Your task to perform on an android device: change alarm snooze length Image 0: 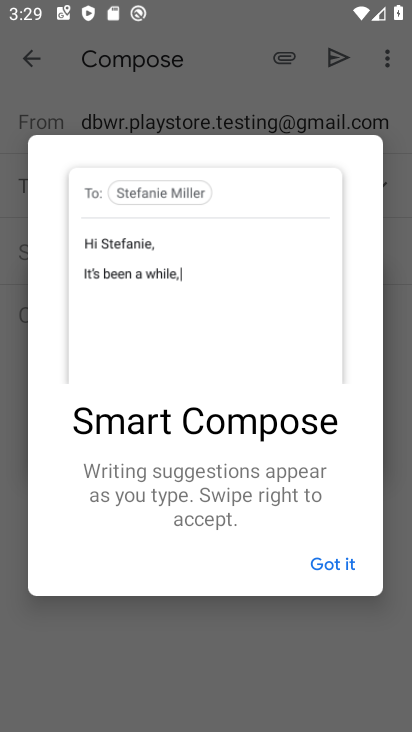
Step 0: press home button
Your task to perform on an android device: change alarm snooze length Image 1: 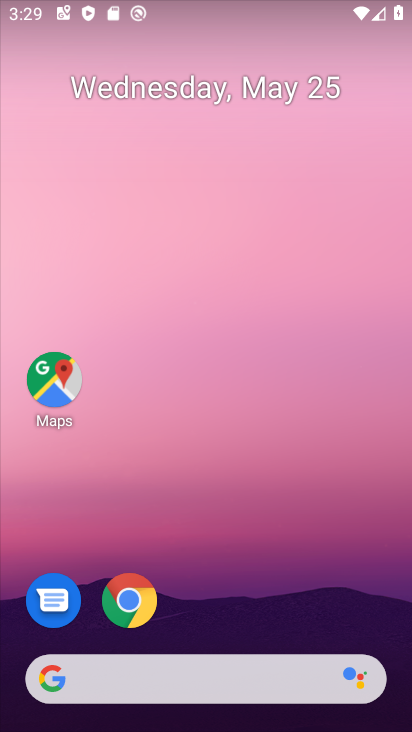
Step 1: drag from (69, 449) to (220, 139)
Your task to perform on an android device: change alarm snooze length Image 2: 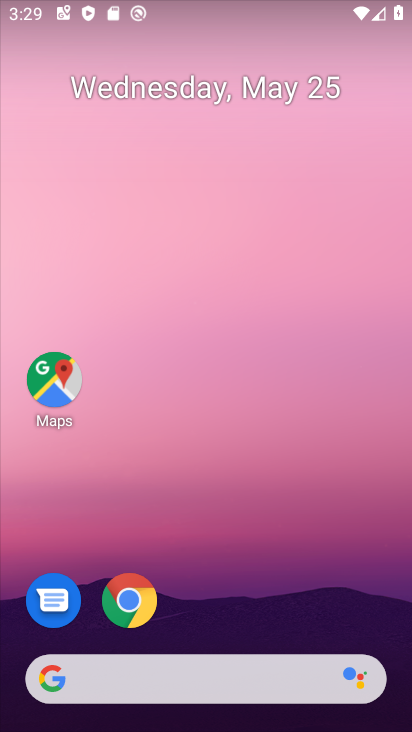
Step 2: drag from (16, 638) to (295, 64)
Your task to perform on an android device: change alarm snooze length Image 3: 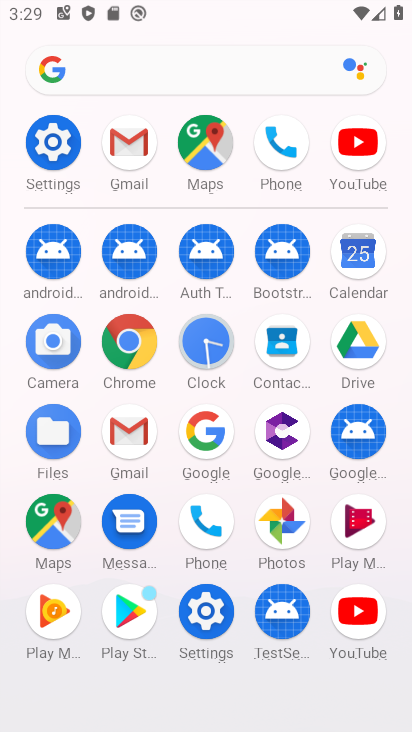
Step 3: click (206, 343)
Your task to perform on an android device: change alarm snooze length Image 4: 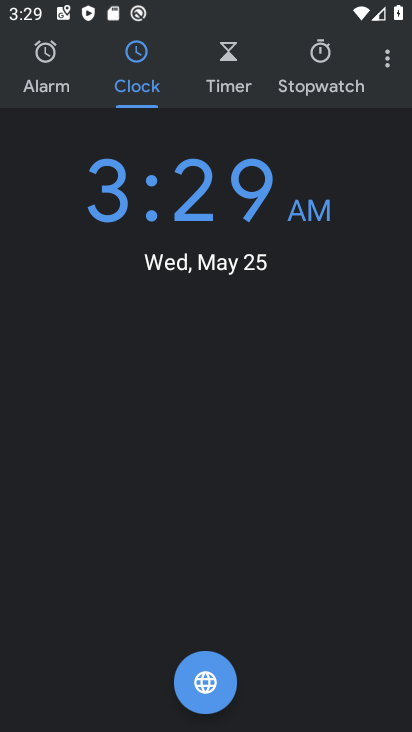
Step 4: click (387, 62)
Your task to perform on an android device: change alarm snooze length Image 5: 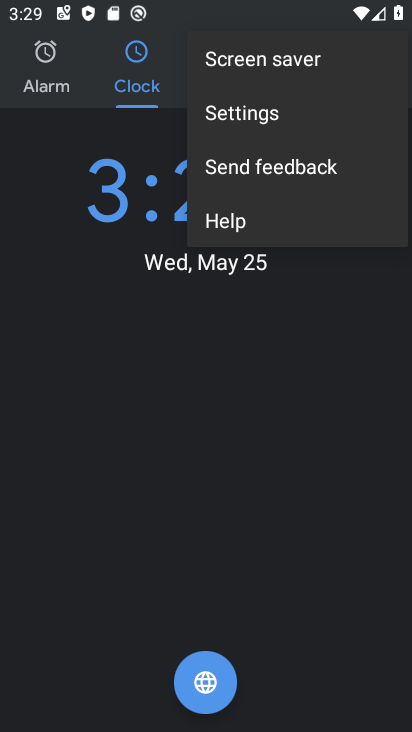
Step 5: click (280, 111)
Your task to perform on an android device: change alarm snooze length Image 6: 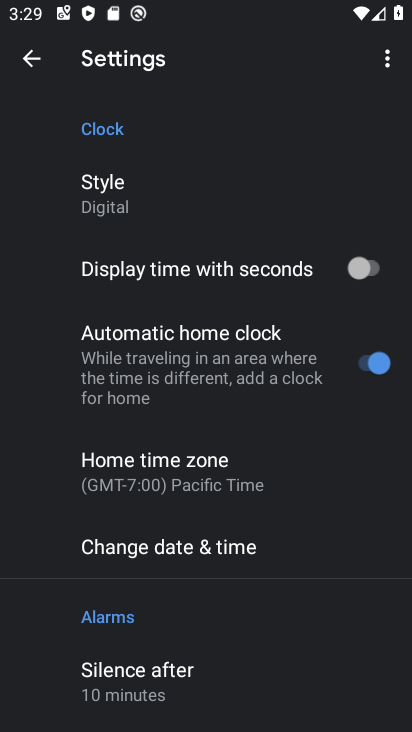
Step 6: drag from (88, 637) to (241, 197)
Your task to perform on an android device: change alarm snooze length Image 7: 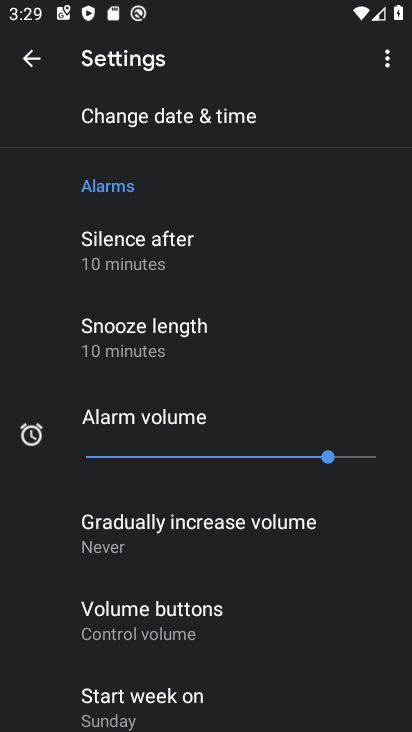
Step 7: click (189, 335)
Your task to perform on an android device: change alarm snooze length Image 8: 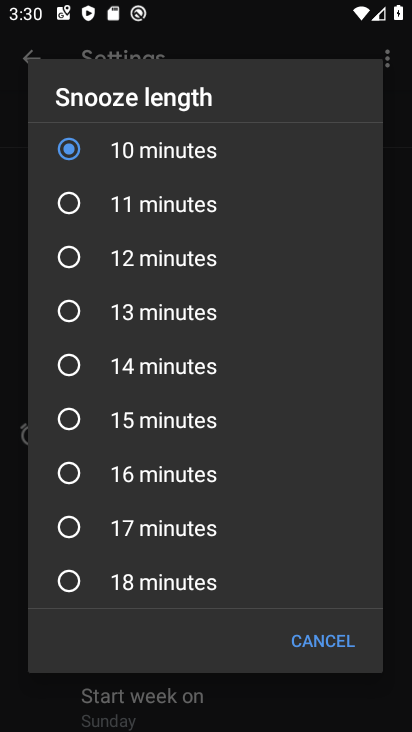
Step 8: click (156, 199)
Your task to perform on an android device: change alarm snooze length Image 9: 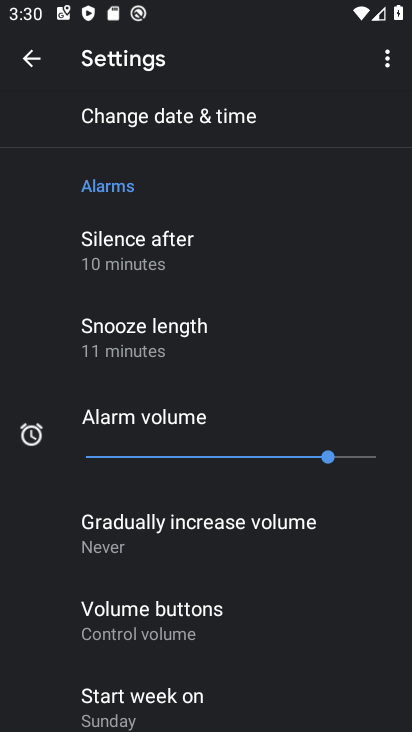
Step 9: task complete